Your task to perform on an android device: change notification settings in the gmail app Image 0: 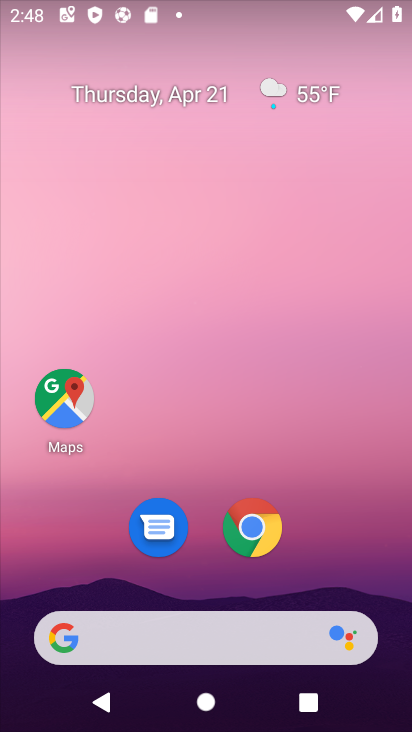
Step 0: drag from (363, 524) to (305, 173)
Your task to perform on an android device: change notification settings in the gmail app Image 1: 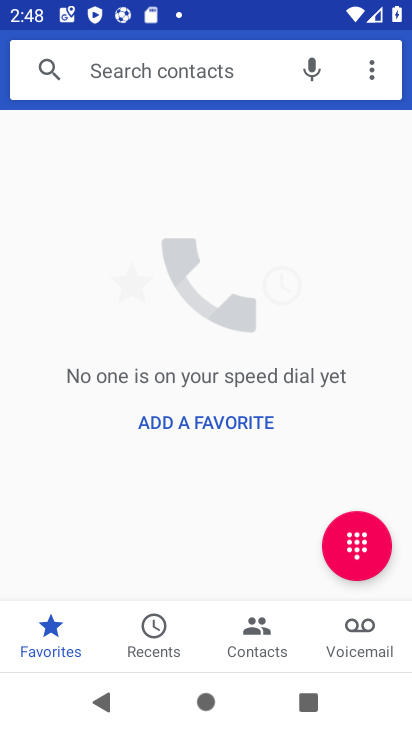
Step 1: press home button
Your task to perform on an android device: change notification settings in the gmail app Image 2: 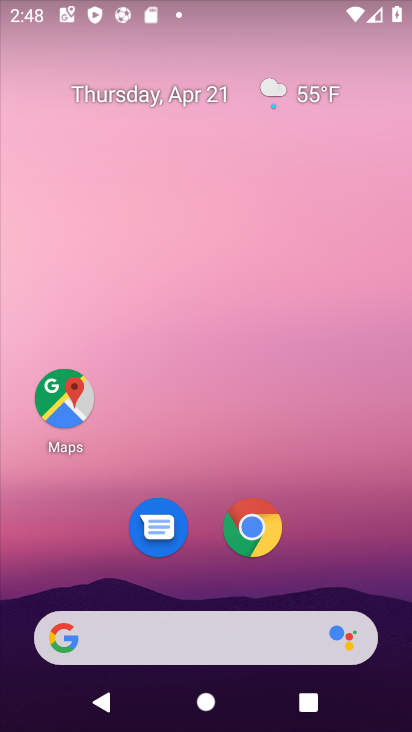
Step 2: drag from (345, 554) to (296, 189)
Your task to perform on an android device: change notification settings in the gmail app Image 3: 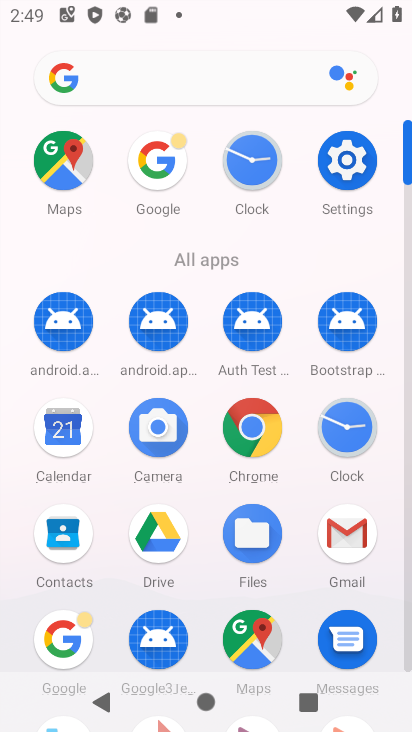
Step 3: click (362, 557)
Your task to perform on an android device: change notification settings in the gmail app Image 4: 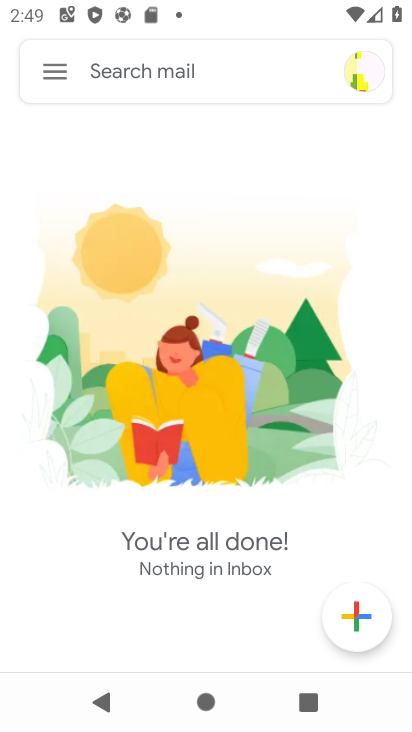
Step 4: click (60, 78)
Your task to perform on an android device: change notification settings in the gmail app Image 5: 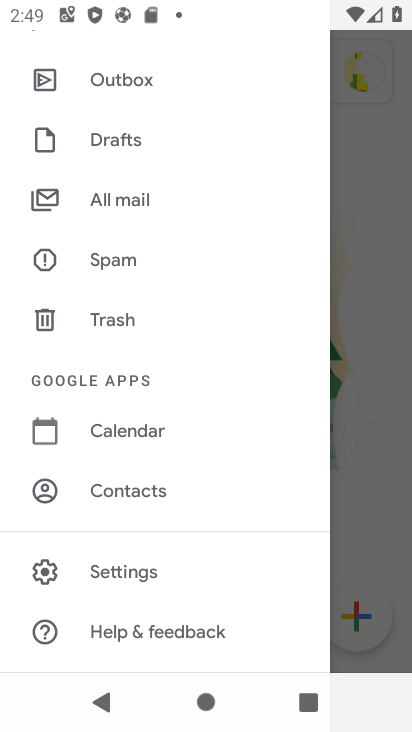
Step 5: click (143, 578)
Your task to perform on an android device: change notification settings in the gmail app Image 6: 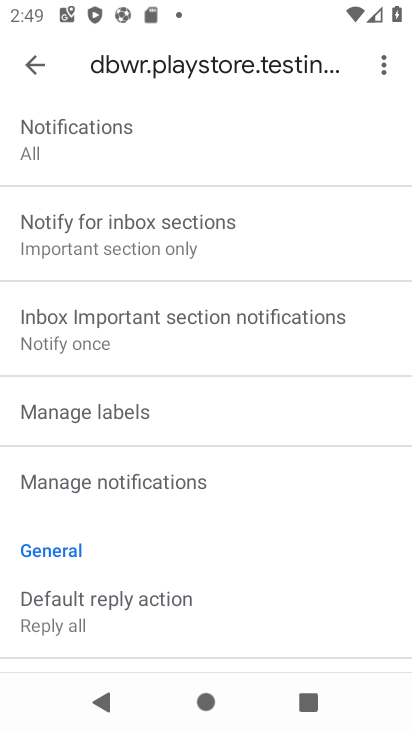
Step 6: click (206, 488)
Your task to perform on an android device: change notification settings in the gmail app Image 7: 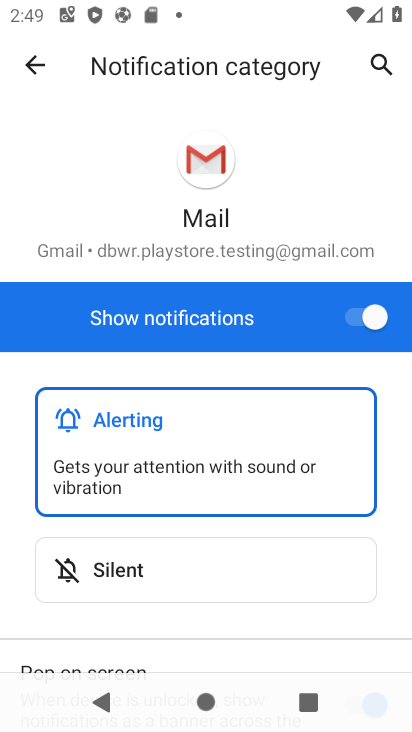
Step 7: drag from (233, 567) to (218, 339)
Your task to perform on an android device: change notification settings in the gmail app Image 8: 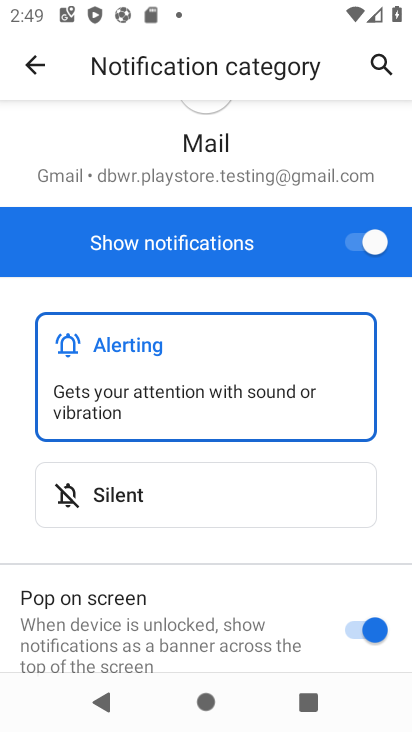
Step 8: click (252, 478)
Your task to perform on an android device: change notification settings in the gmail app Image 9: 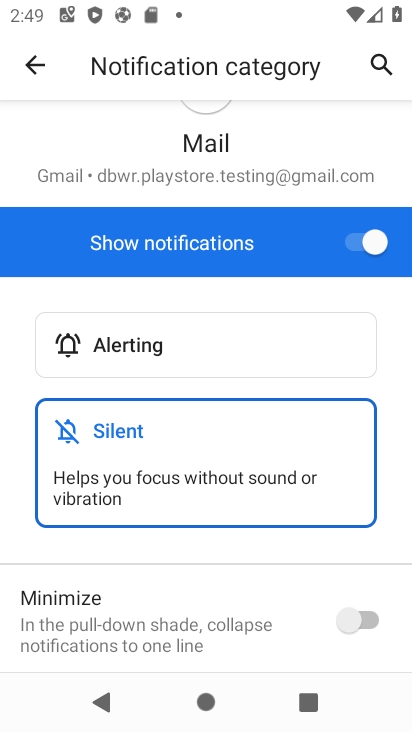
Step 9: click (378, 629)
Your task to perform on an android device: change notification settings in the gmail app Image 10: 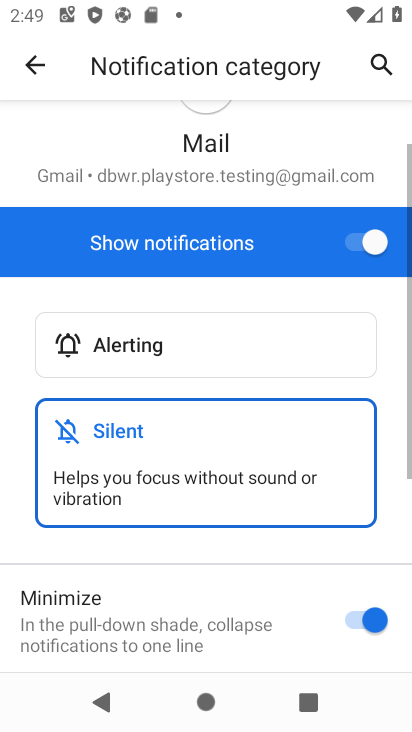
Step 10: task complete